Your task to perform on an android device: When is my next appointment? Image 0: 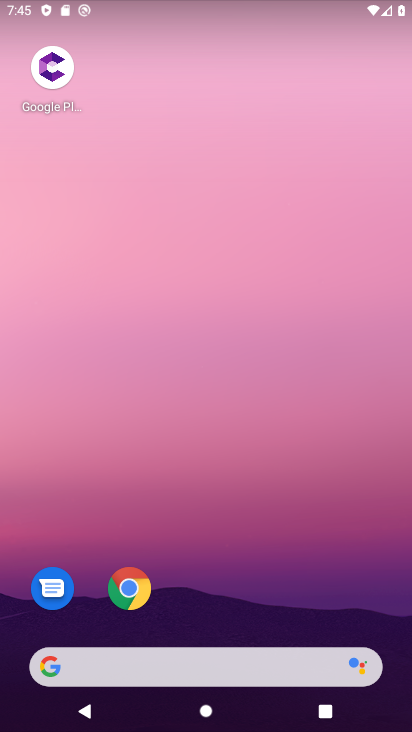
Step 0: drag from (314, 567) to (276, 112)
Your task to perform on an android device: When is my next appointment? Image 1: 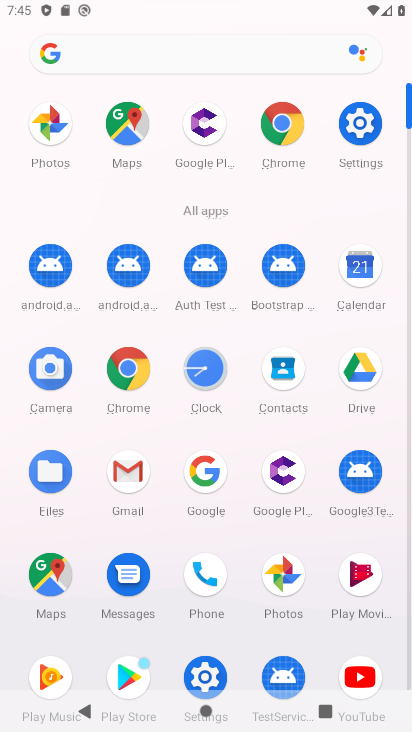
Step 1: click (364, 263)
Your task to perform on an android device: When is my next appointment? Image 2: 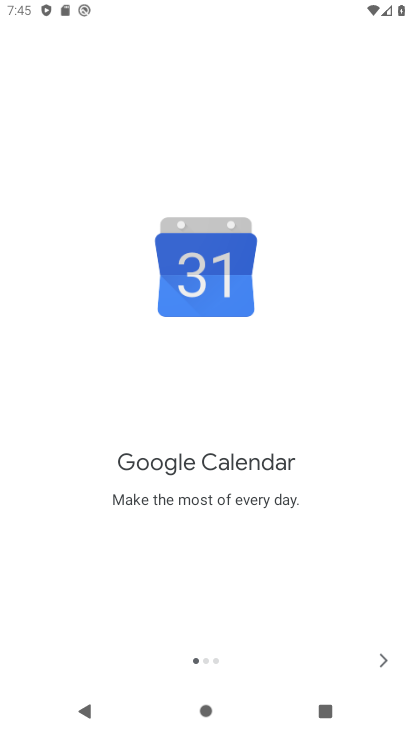
Step 2: click (386, 656)
Your task to perform on an android device: When is my next appointment? Image 3: 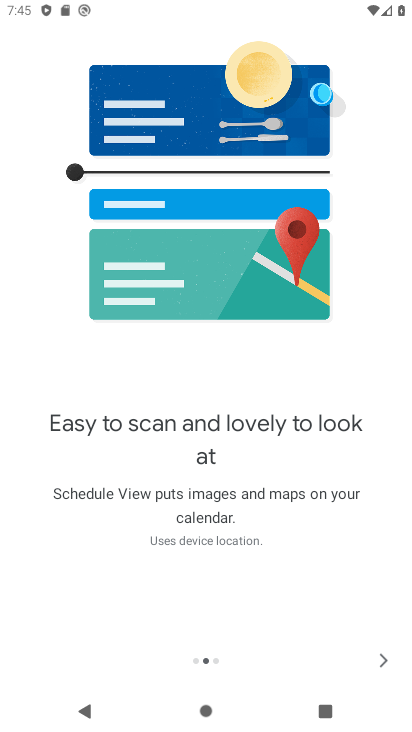
Step 3: click (385, 657)
Your task to perform on an android device: When is my next appointment? Image 4: 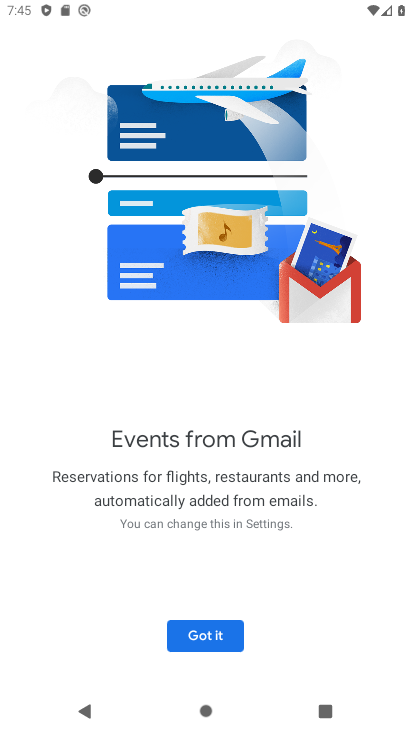
Step 4: click (206, 633)
Your task to perform on an android device: When is my next appointment? Image 5: 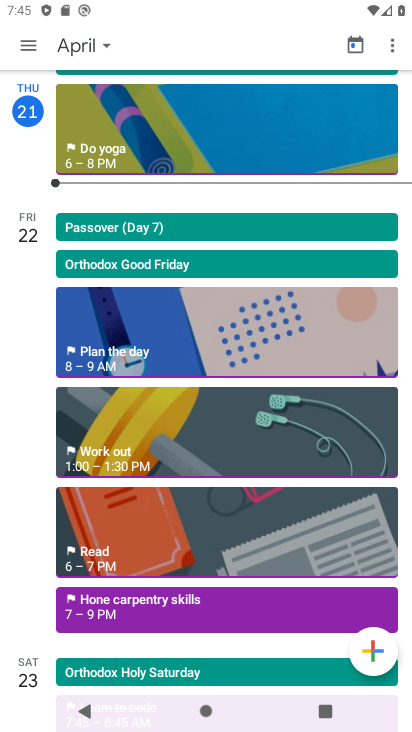
Step 5: drag from (239, 580) to (194, 372)
Your task to perform on an android device: When is my next appointment? Image 6: 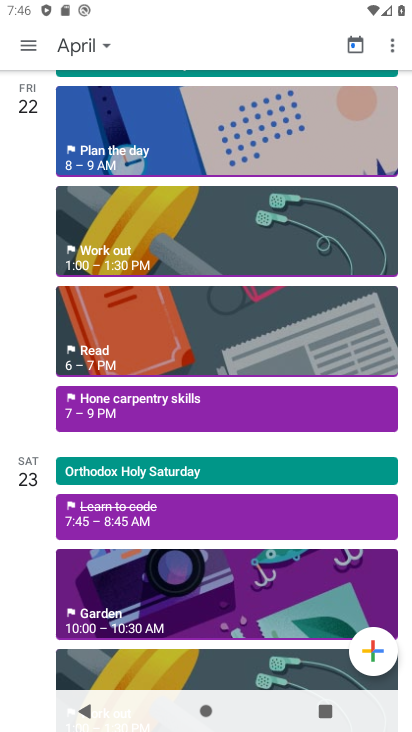
Step 6: drag from (169, 567) to (156, 287)
Your task to perform on an android device: When is my next appointment? Image 7: 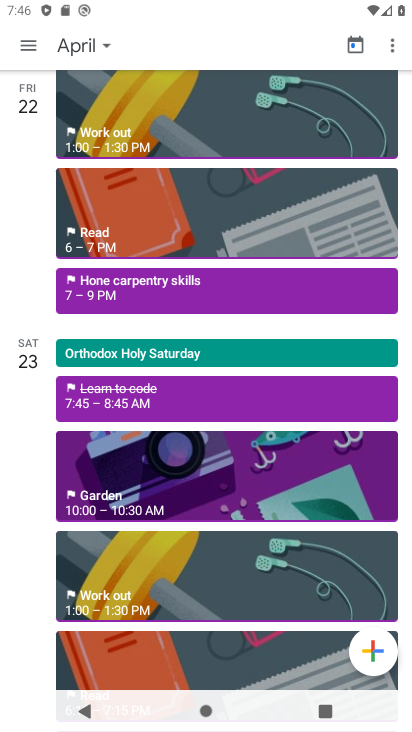
Step 7: click (156, 287)
Your task to perform on an android device: When is my next appointment? Image 8: 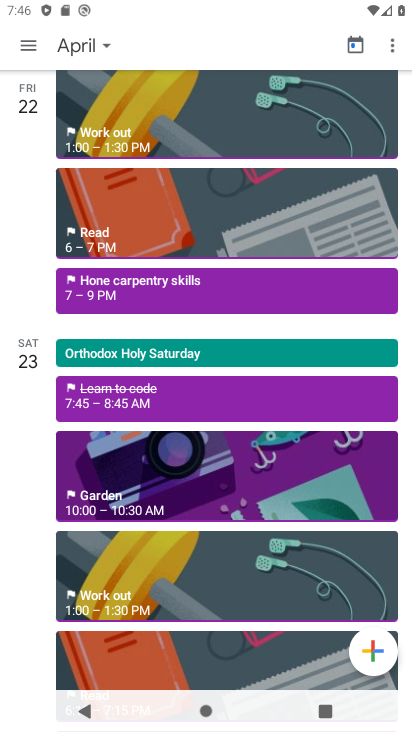
Step 8: click (117, 289)
Your task to perform on an android device: When is my next appointment? Image 9: 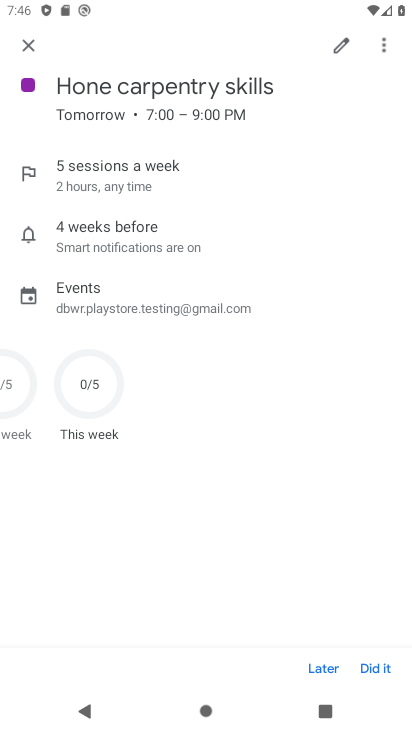
Step 9: task complete